Your task to perform on an android device: Open sound settings Image 0: 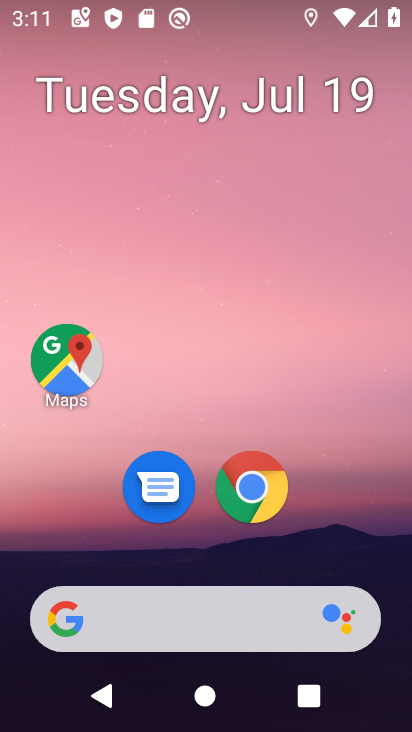
Step 0: drag from (59, 541) to (166, 5)
Your task to perform on an android device: Open sound settings Image 1: 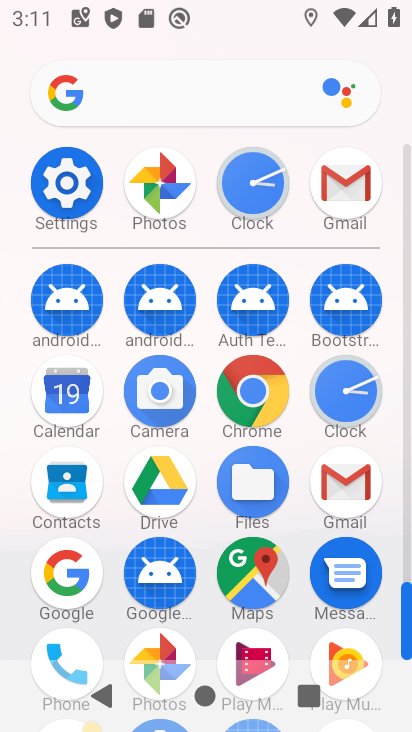
Step 1: click (73, 177)
Your task to perform on an android device: Open sound settings Image 2: 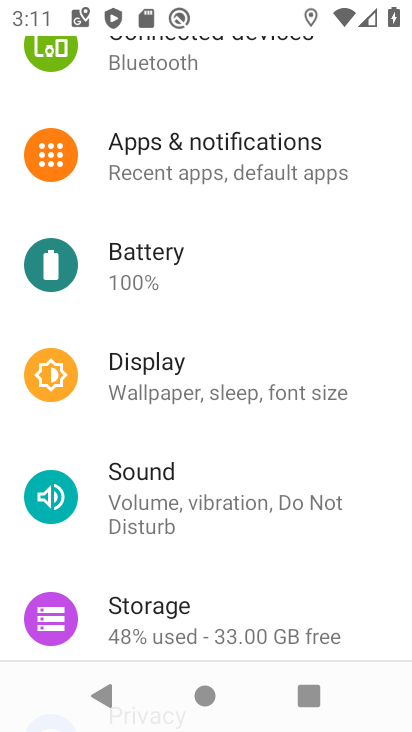
Step 2: click (189, 498)
Your task to perform on an android device: Open sound settings Image 3: 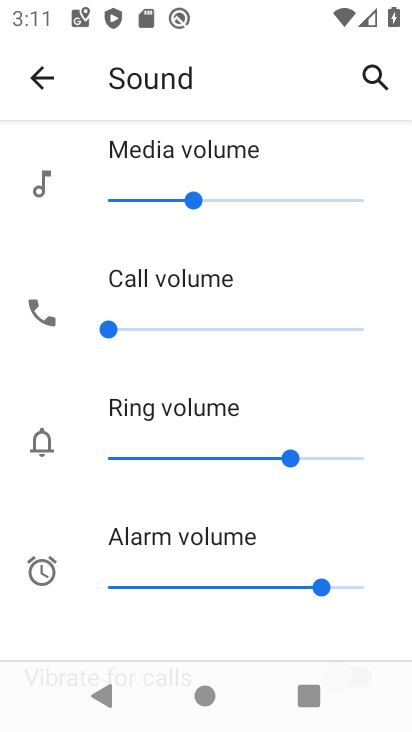
Step 3: task complete